Your task to perform on an android device: Open Google Maps and go to "Timeline" Image 0: 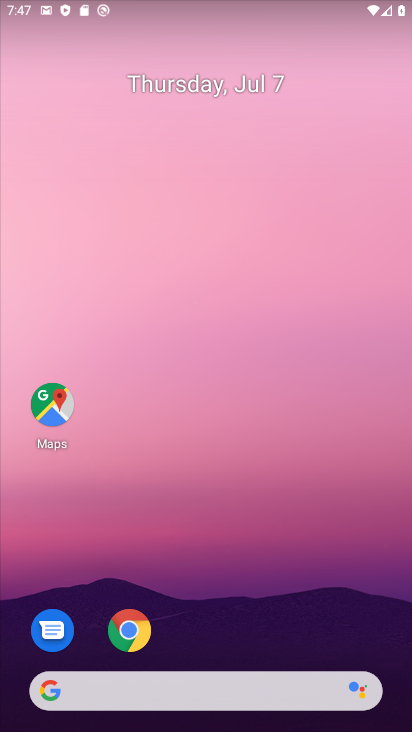
Step 0: click (51, 404)
Your task to perform on an android device: Open Google Maps and go to "Timeline" Image 1: 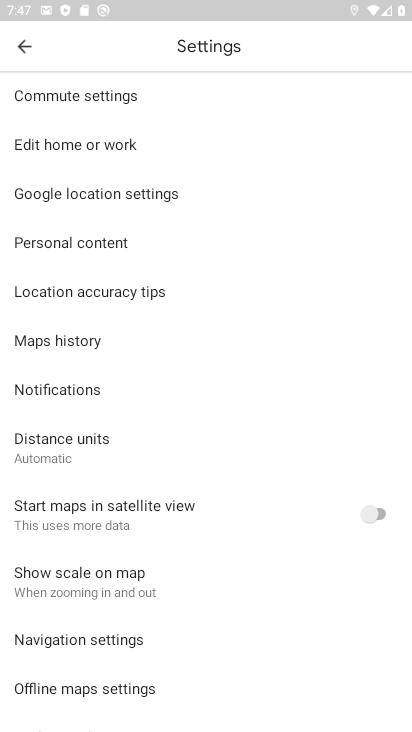
Step 1: click (17, 51)
Your task to perform on an android device: Open Google Maps and go to "Timeline" Image 2: 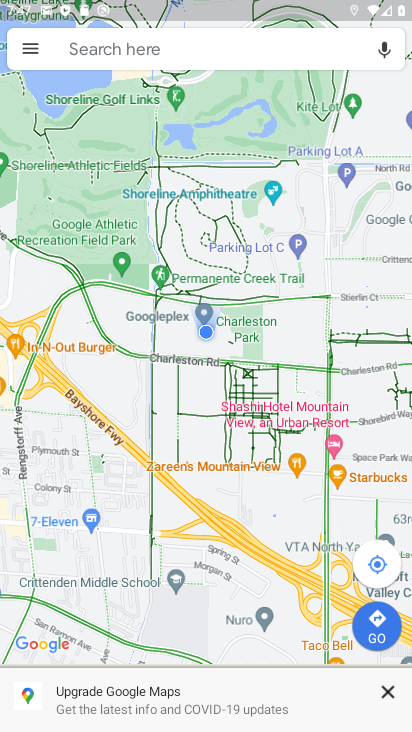
Step 2: click (25, 48)
Your task to perform on an android device: Open Google Maps and go to "Timeline" Image 3: 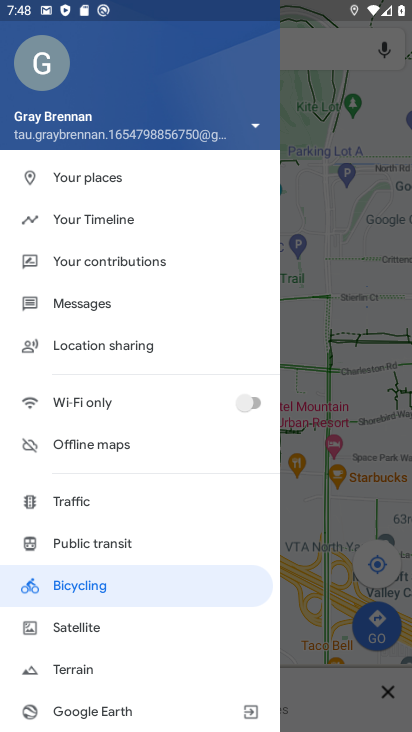
Step 3: click (117, 224)
Your task to perform on an android device: Open Google Maps and go to "Timeline" Image 4: 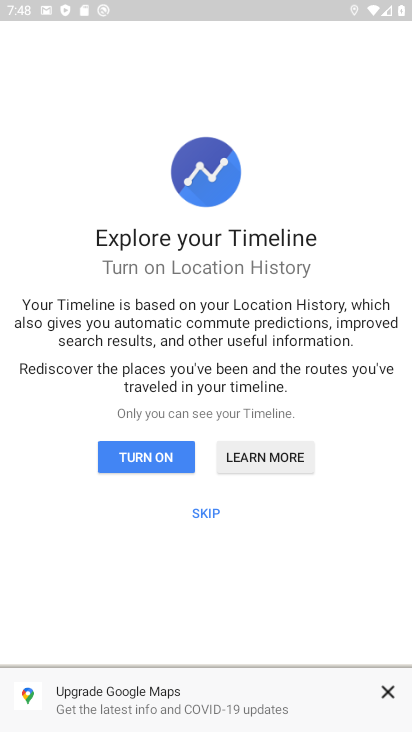
Step 4: click (204, 511)
Your task to perform on an android device: Open Google Maps and go to "Timeline" Image 5: 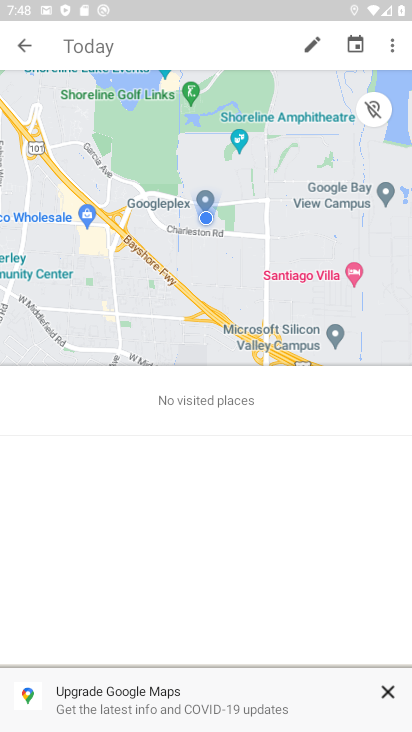
Step 5: task complete